Your task to perform on an android device: choose inbox layout in the gmail app Image 0: 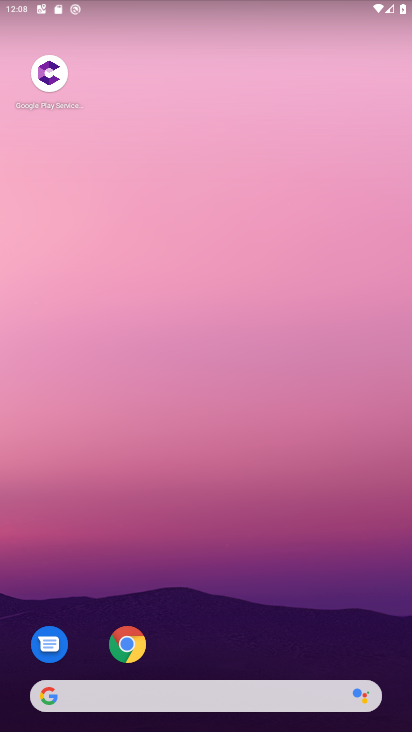
Step 0: drag from (218, 633) to (245, 89)
Your task to perform on an android device: choose inbox layout in the gmail app Image 1: 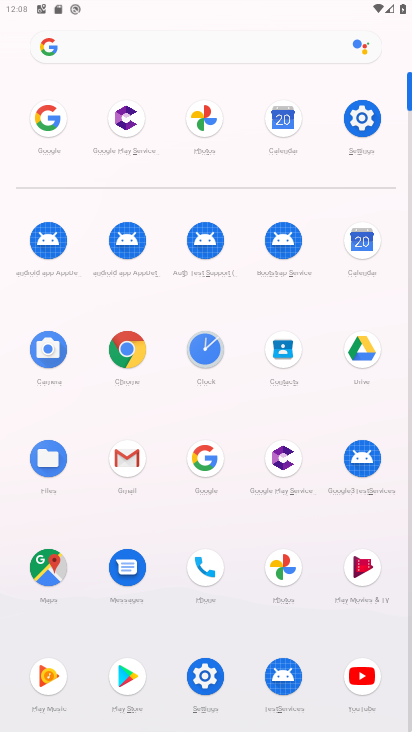
Step 1: click (113, 452)
Your task to perform on an android device: choose inbox layout in the gmail app Image 2: 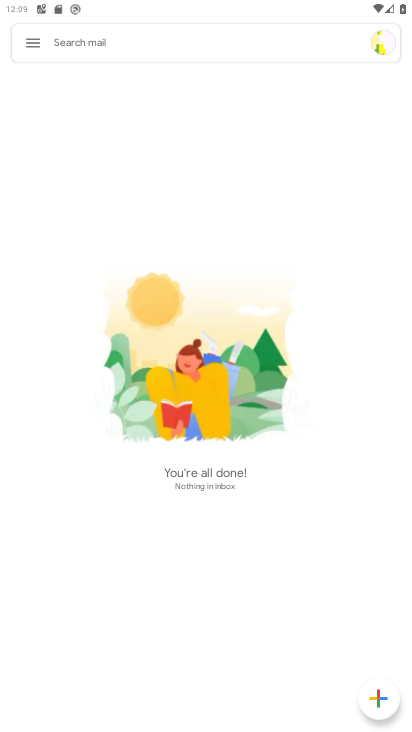
Step 2: click (37, 37)
Your task to perform on an android device: choose inbox layout in the gmail app Image 3: 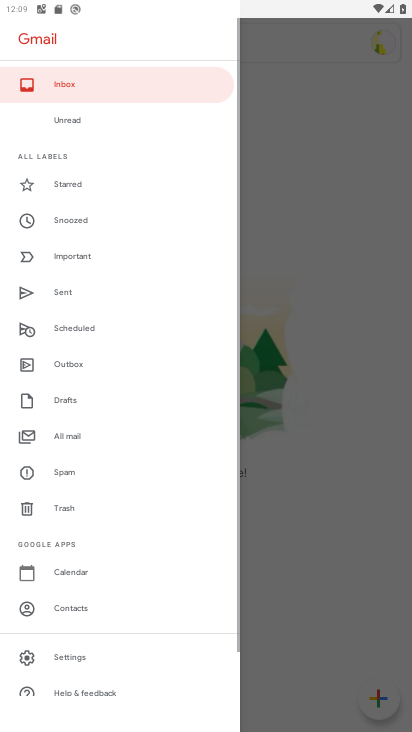
Step 3: click (101, 655)
Your task to perform on an android device: choose inbox layout in the gmail app Image 4: 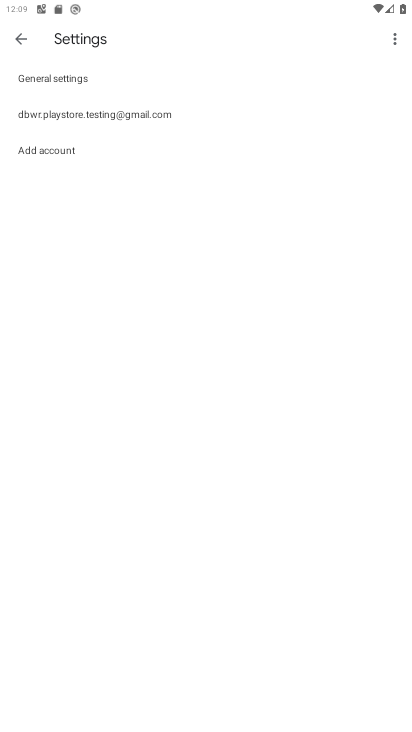
Step 4: click (89, 115)
Your task to perform on an android device: choose inbox layout in the gmail app Image 5: 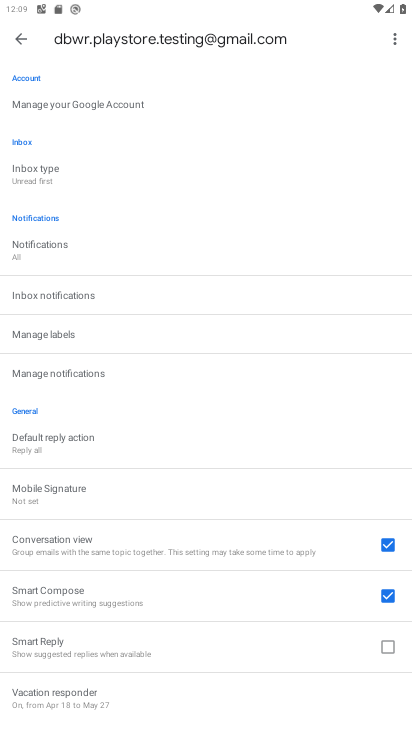
Step 5: click (88, 175)
Your task to perform on an android device: choose inbox layout in the gmail app Image 6: 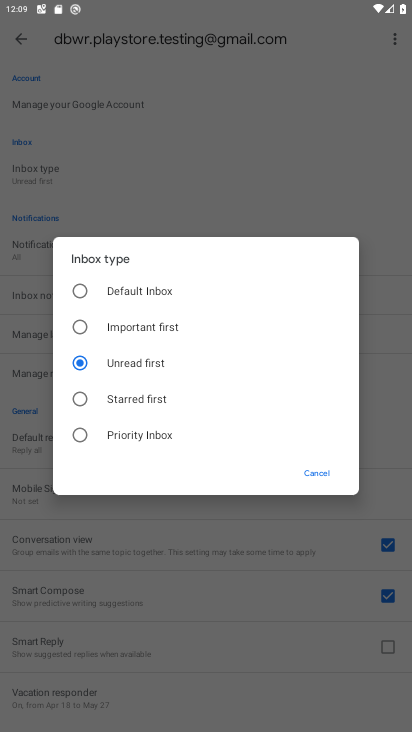
Step 6: click (127, 288)
Your task to perform on an android device: choose inbox layout in the gmail app Image 7: 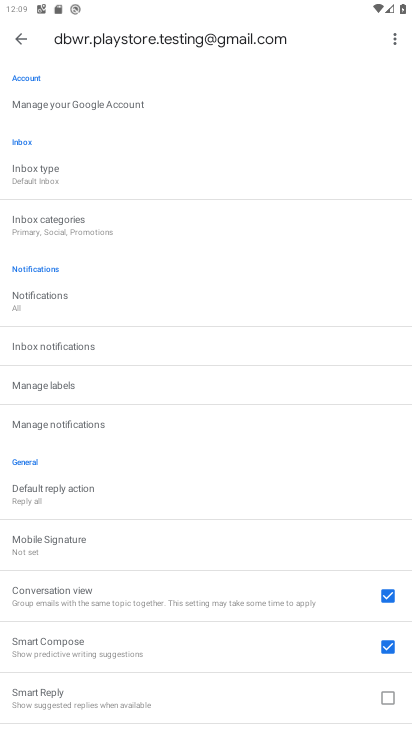
Step 7: task complete